Your task to perform on an android device: Search for sushi restaurants on Maps Image 0: 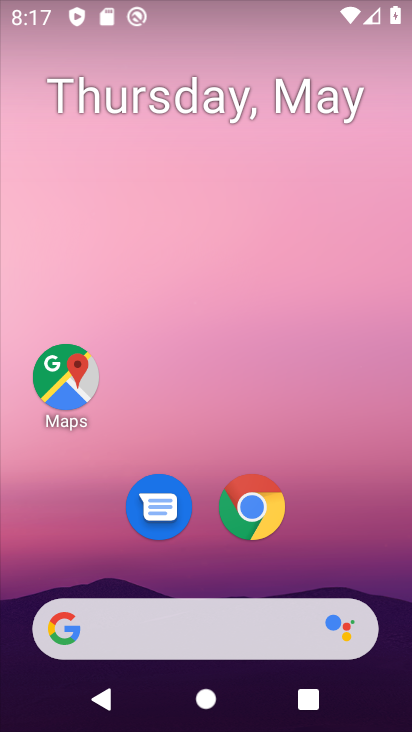
Step 0: click (372, 535)
Your task to perform on an android device: Search for sushi restaurants on Maps Image 1: 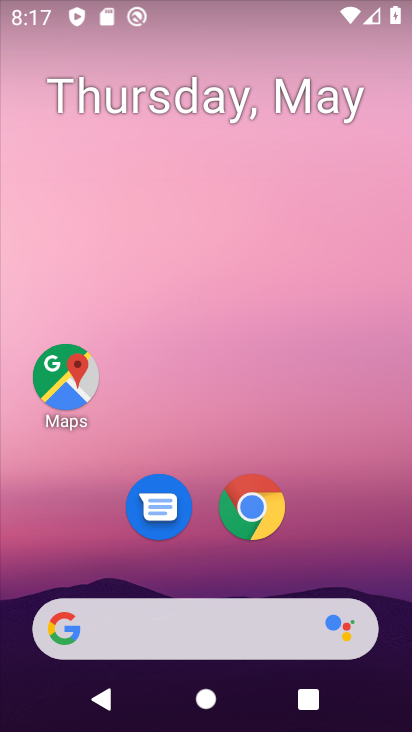
Step 1: click (51, 398)
Your task to perform on an android device: Search for sushi restaurants on Maps Image 2: 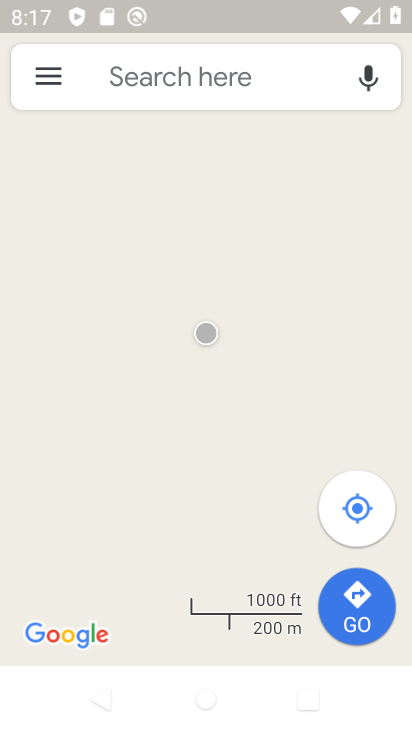
Step 2: click (187, 69)
Your task to perform on an android device: Search for sushi restaurants on Maps Image 3: 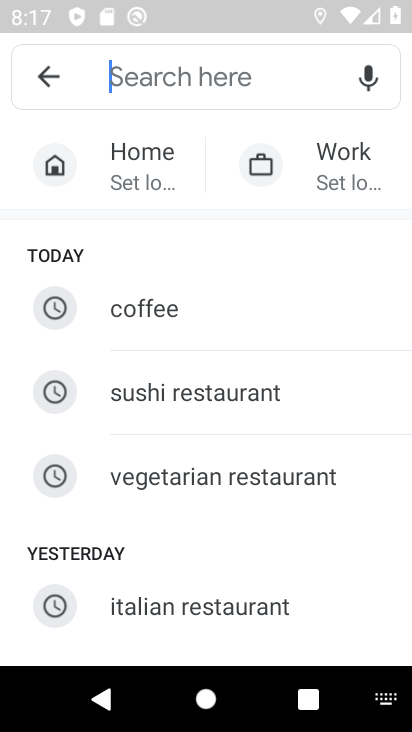
Step 3: type "sushi restaurants"
Your task to perform on an android device: Search for sushi restaurants on Maps Image 4: 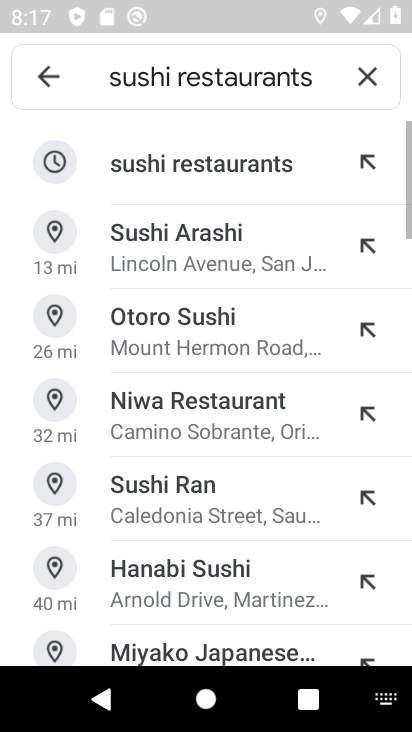
Step 4: click (188, 175)
Your task to perform on an android device: Search for sushi restaurants on Maps Image 5: 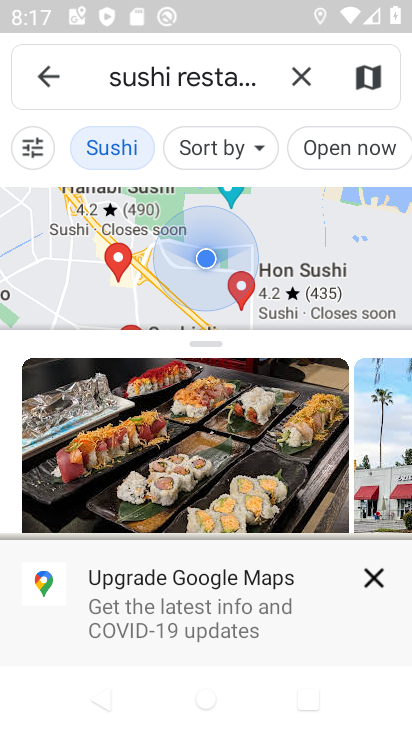
Step 5: click (375, 579)
Your task to perform on an android device: Search for sushi restaurants on Maps Image 6: 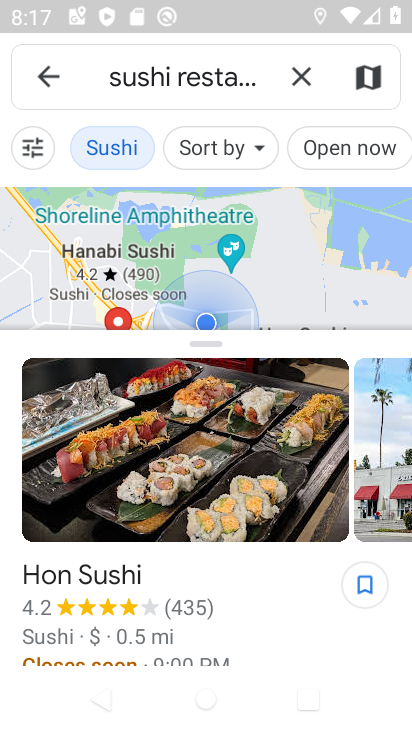
Step 6: task complete